Your task to perform on an android device: When is my next meeting? Image 0: 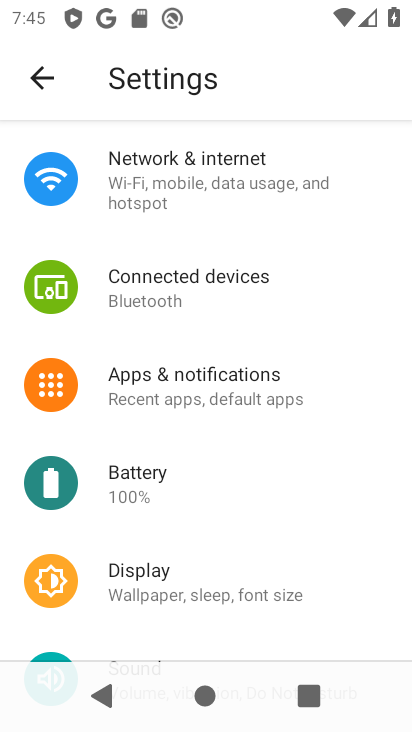
Step 0: press home button
Your task to perform on an android device: When is my next meeting? Image 1: 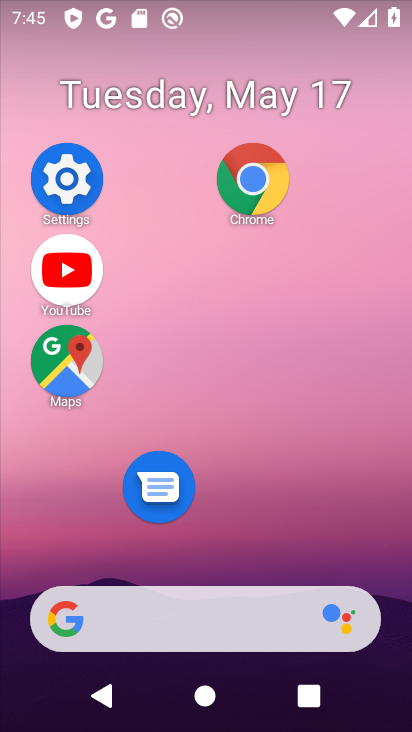
Step 1: click (232, 114)
Your task to perform on an android device: When is my next meeting? Image 2: 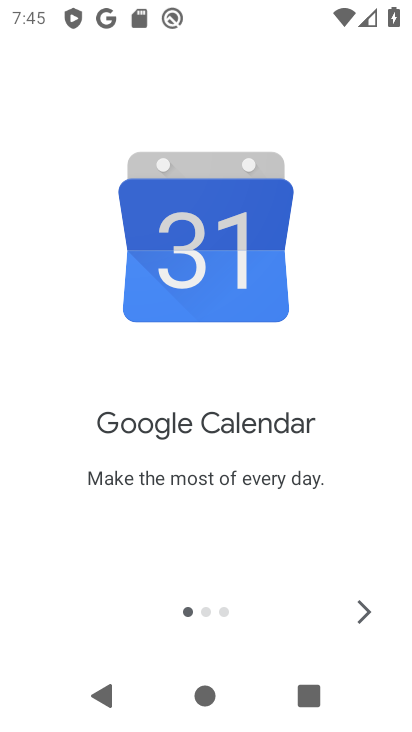
Step 2: click (378, 617)
Your task to perform on an android device: When is my next meeting? Image 3: 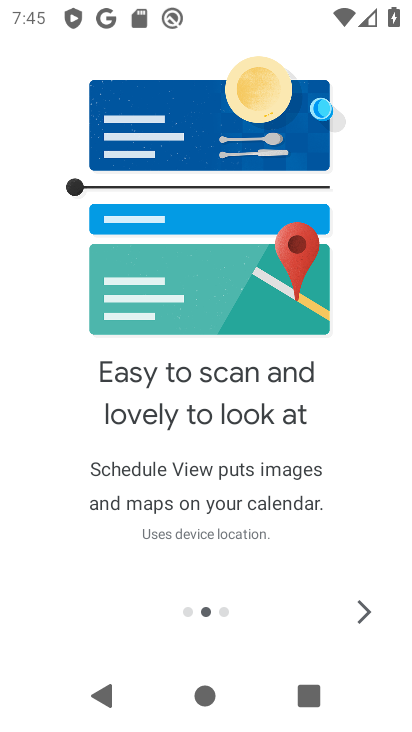
Step 3: click (379, 617)
Your task to perform on an android device: When is my next meeting? Image 4: 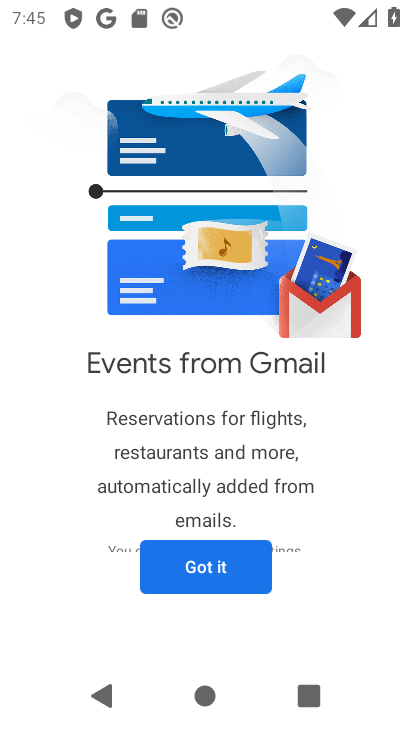
Step 4: click (237, 575)
Your task to perform on an android device: When is my next meeting? Image 5: 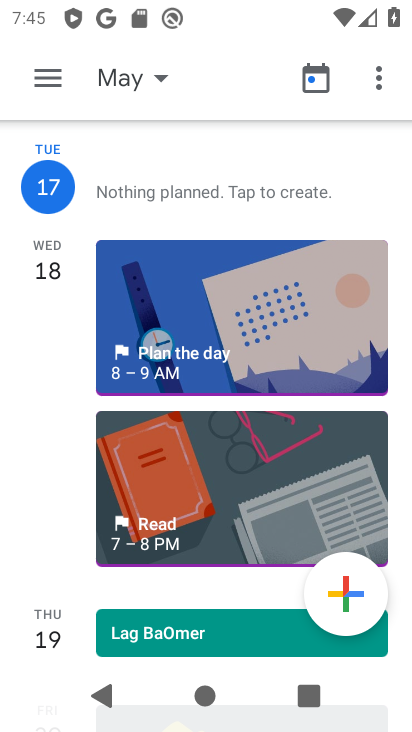
Step 5: click (41, 635)
Your task to perform on an android device: When is my next meeting? Image 6: 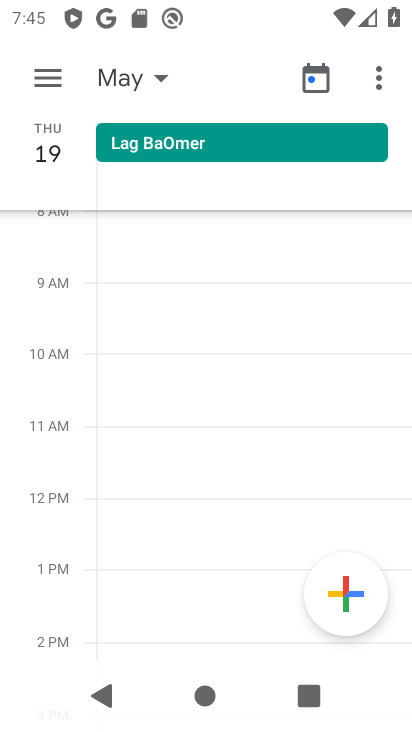
Step 6: task complete